Your task to perform on an android device: open a bookmark in the chrome app Image 0: 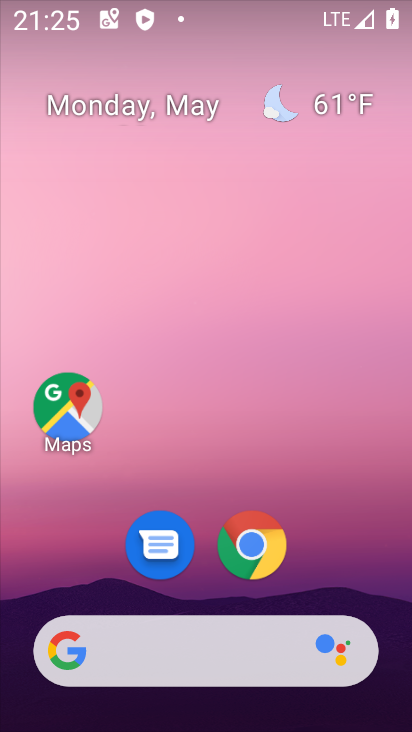
Step 0: click (205, 568)
Your task to perform on an android device: open a bookmark in the chrome app Image 1: 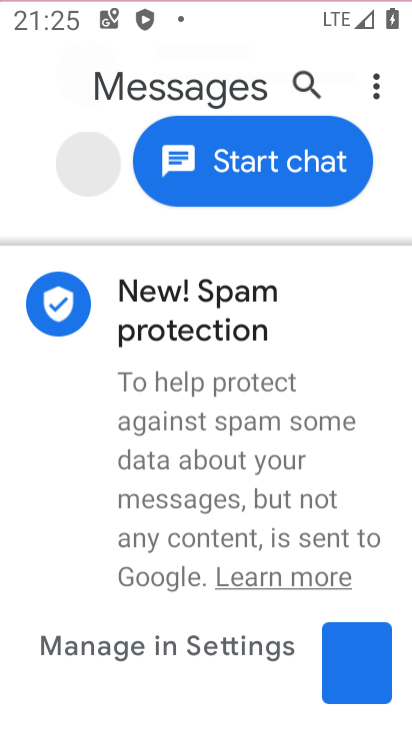
Step 1: click (265, 558)
Your task to perform on an android device: open a bookmark in the chrome app Image 2: 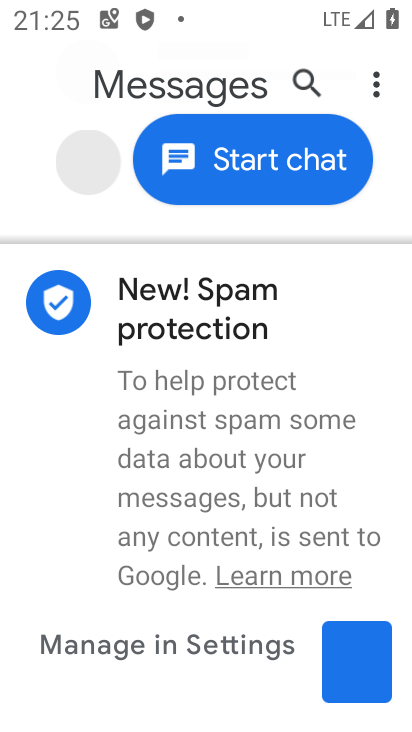
Step 2: press home button
Your task to perform on an android device: open a bookmark in the chrome app Image 3: 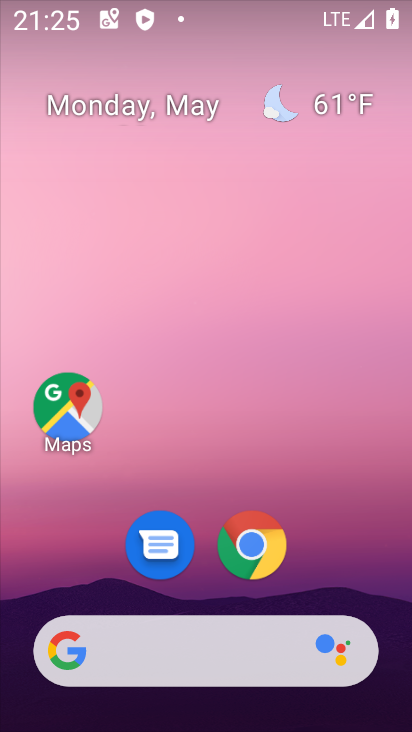
Step 3: click (240, 560)
Your task to perform on an android device: open a bookmark in the chrome app Image 4: 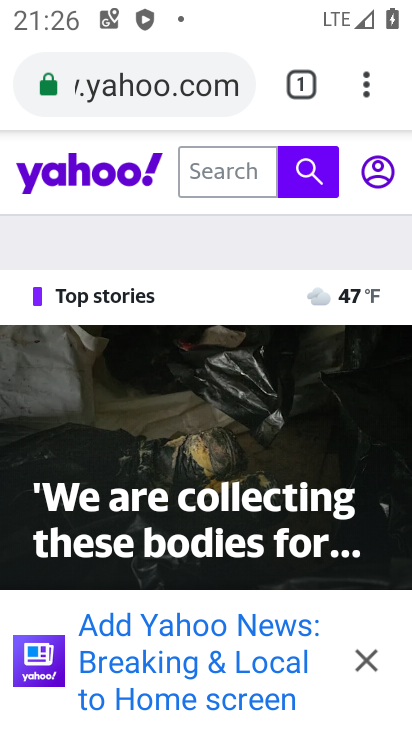
Step 4: drag from (366, 86) to (201, 323)
Your task to perform on an android device: open a bookmark in the chrome app Image 5: 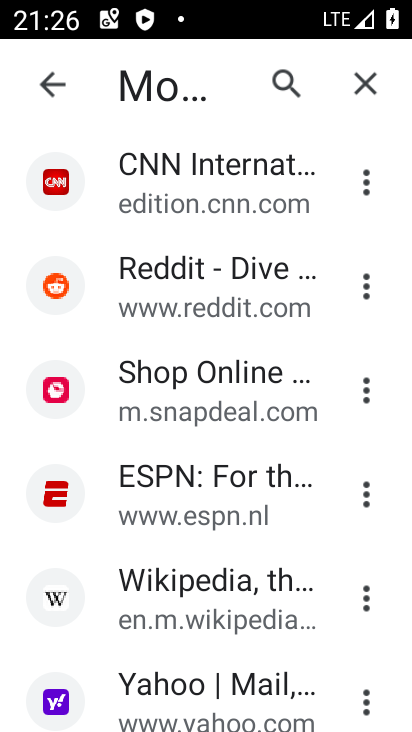
Step 5: click (231, 202)
Your task to perform on an android device: open a bookmark in the chrome app Image 6: 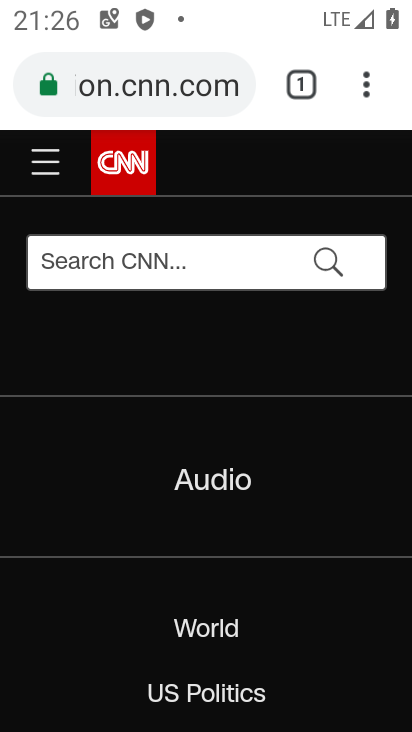
Step 6: task complete